Your task to perform on an android device: Open Reddit.com Image 0: 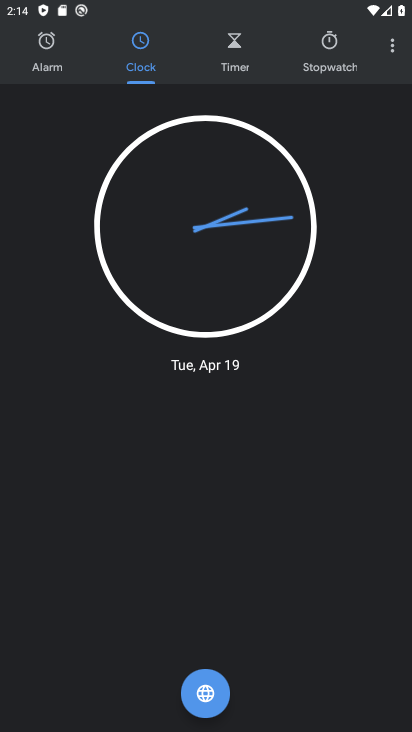
Step 0: press home button
Your task to perform on an android device: Open Reddit.com Image 1: 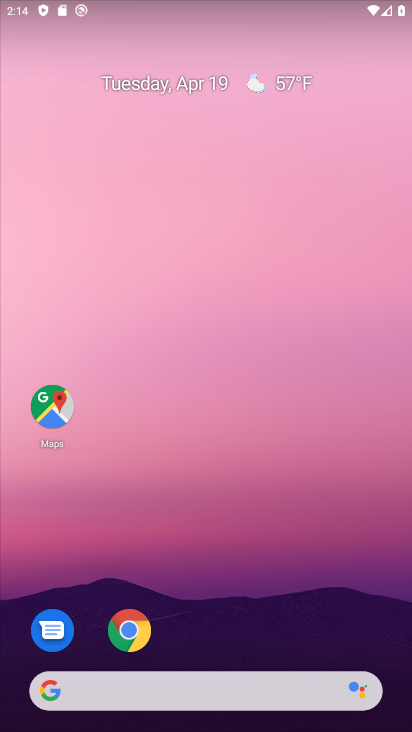
Step 1: click (154, 696)
Your task to perform on an android device: Open Reddit.com Image 2: 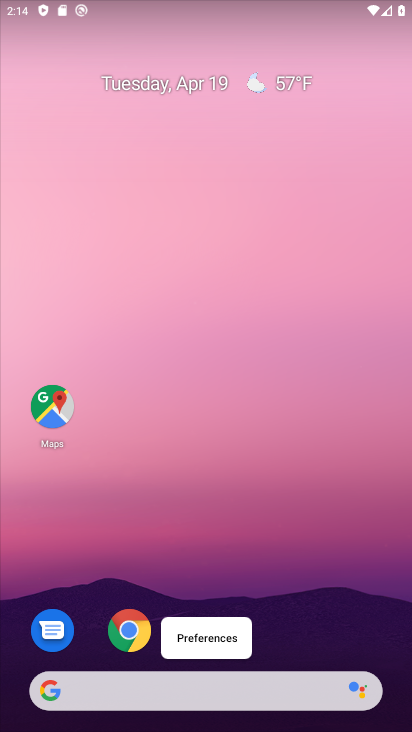
Step 2: click (209, 691)
Your task to perform on an android device: Open Reddit.com Image 3: 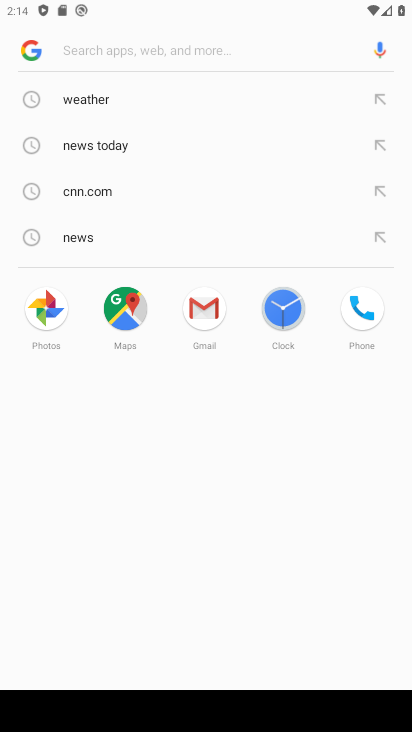
Step 3: type "Reddit.com"
Your task to perform on an android device: Open Reddit.com Image 4: 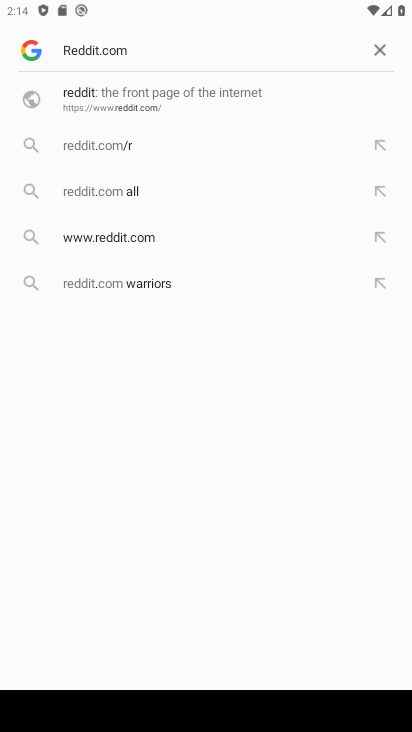
Step 4: click (122, 242)
Your task to perform on an android device: Open Reddit.com Image 5: 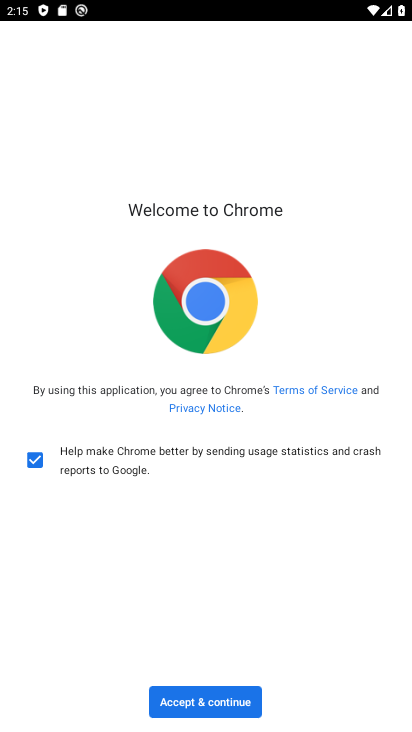
Step 5: click (236, 700)
Your task to perform on an android device: Open Reddit.com Image 6: 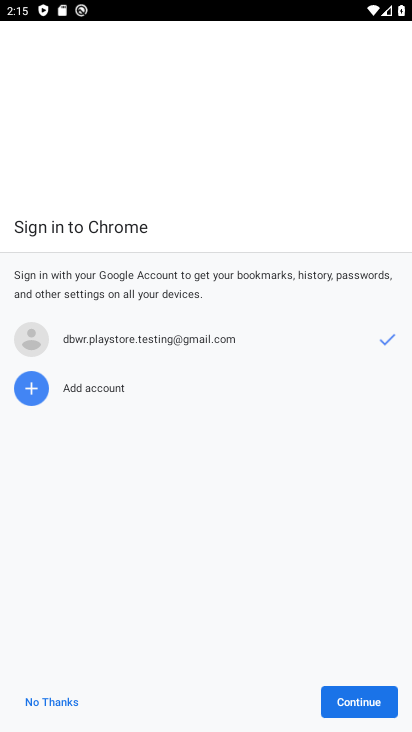
Step 6: click (342, 704)
Your task to perform on an android device: Open Reddit.com Image 7: 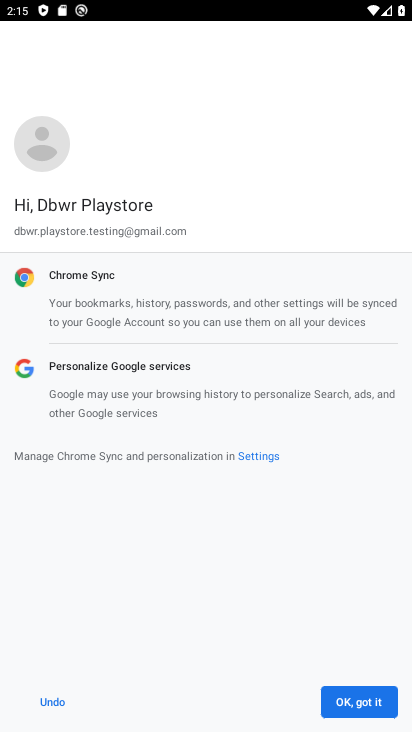
Step 7: click (345, 694)
Your task to perform on an android device: Open Reddit.com Image 8: 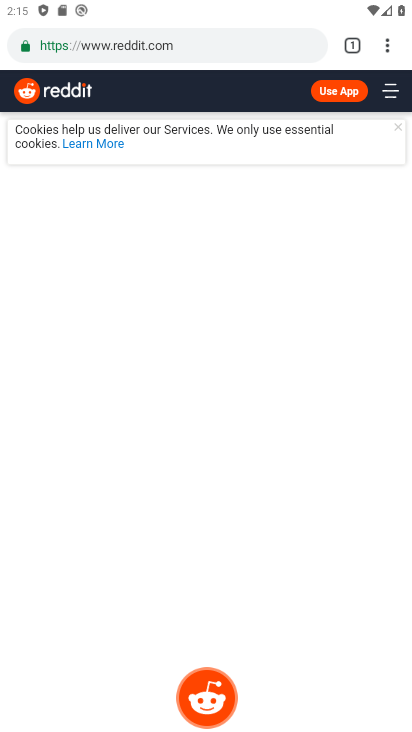
Step 8: task complete